Your task to perform on an android device: check battery use Image 0: 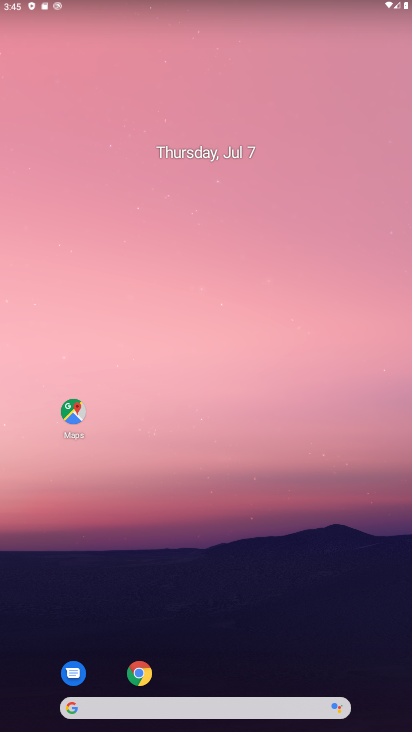
Step 0: drag from (219, 673) to (208, 94)
Your task to perform on an android device: check battery use Image 1: 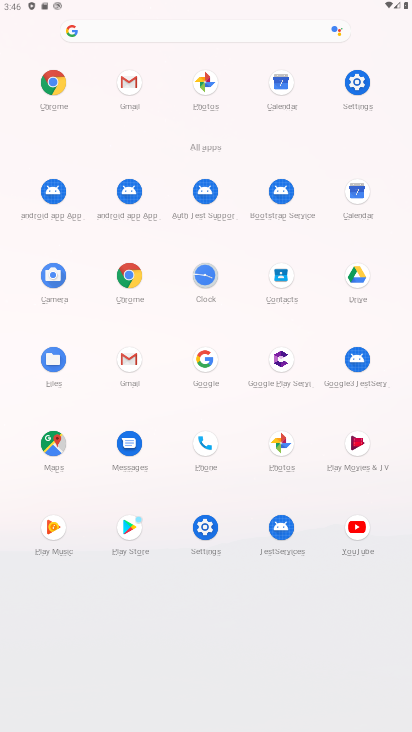
Step 1: click (353, 80)
Your task to perform on an android device: check battery use Image 2: 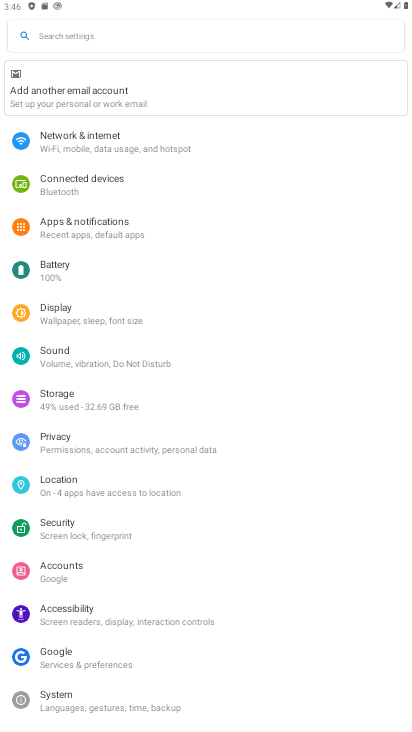
Step 2: click (81, 265)
Your task to perform on an android device: check battery use Image 3: 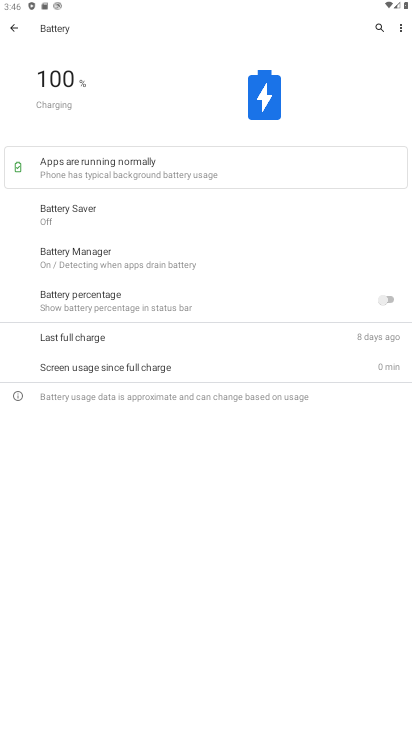
Step 3: click (399, 26)
Your task to perform on an android device: check battery use Image 4: 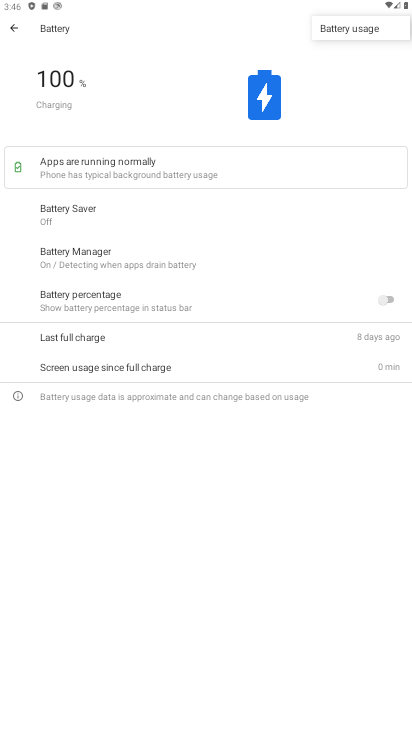
Step 4: click (347, 30)
Your task to perform on an android device: check battery use Image 5: 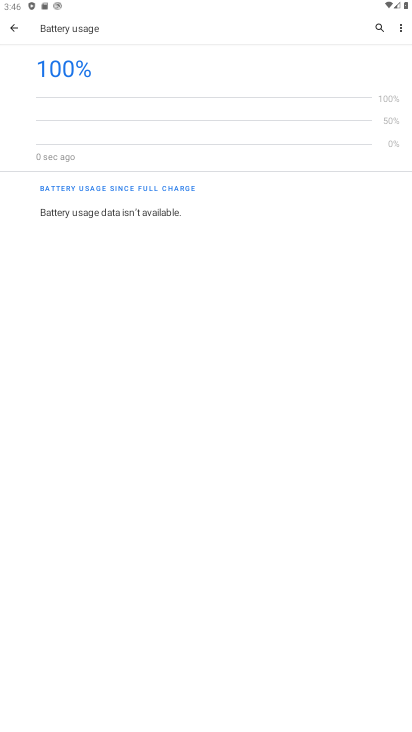
Step 5: task complete